Your task to perform on an android device: search for starred emails in the gmail app Image 0: 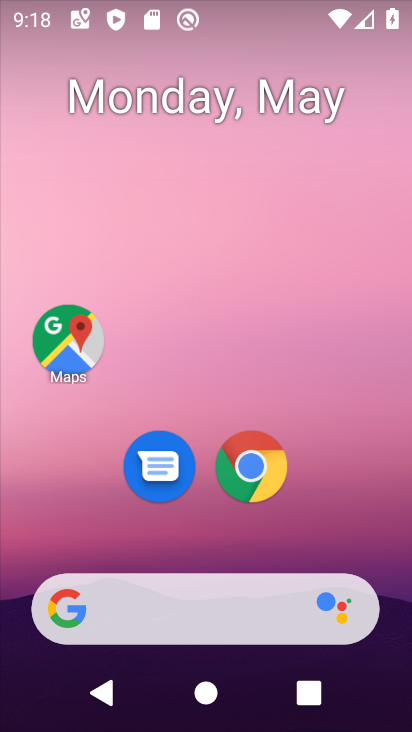
Step 0: press home button
Your task to perform on an android device: search for starred emails in the gmail app Image 1: 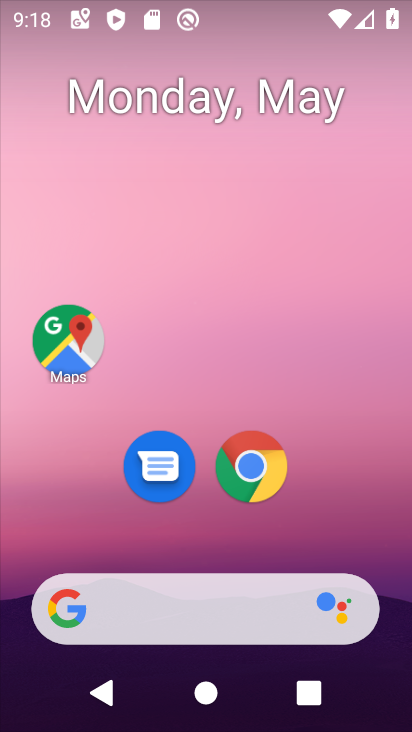
Step 1: drag from (217, 612) to (259, 326)
Your task to perform on an android device: search for starred emails in the gmail app Image 2: 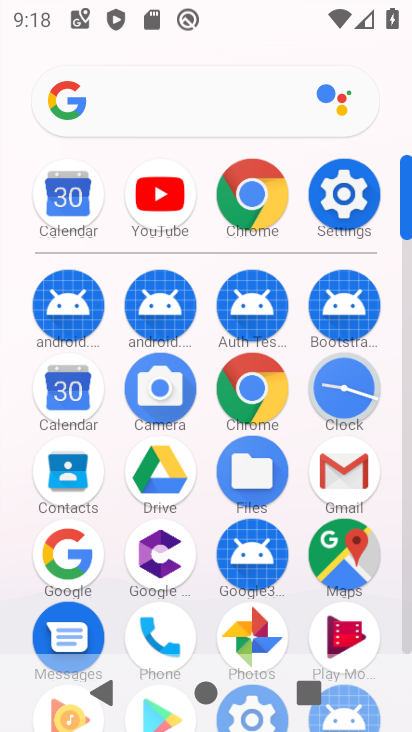
Step 2: click (352, 466)
Your task to perform on an android device: search for starred emails in the gmail app Image 3: 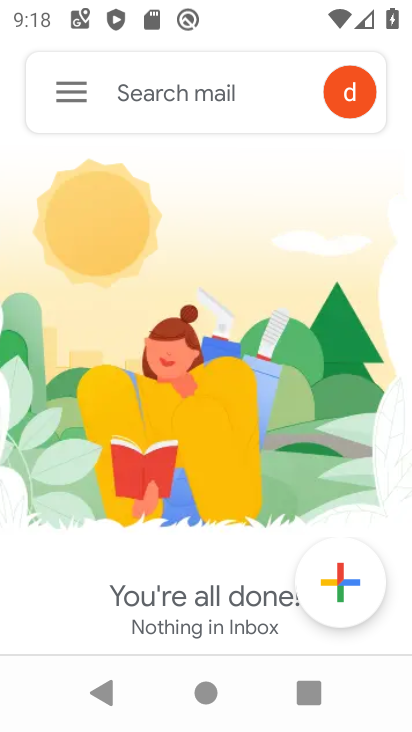
Step 3: click (80, 87)
Your task to perform on an android device: search for starred emails in the gmail app Image 4: 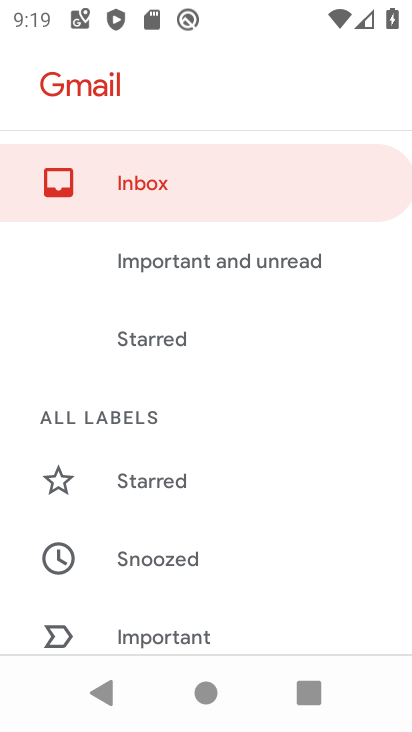
Step 4: click (149, 483)
Your task to perform on an android device: search for starred emails in the gmail app Image 5: 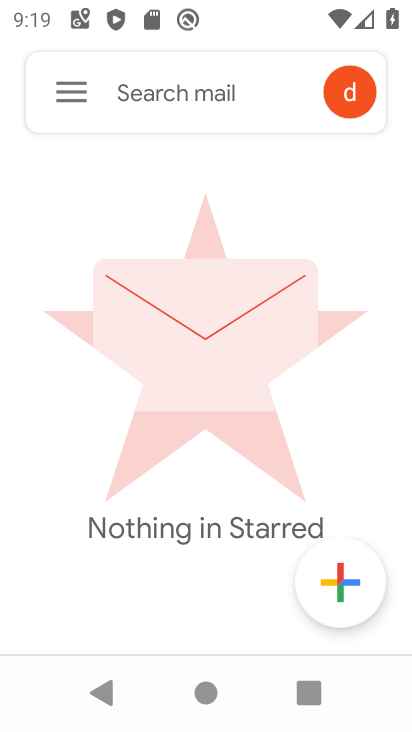
Step 5: task complete